Your task to perform on an android device: Open the phone app and click the voicemail tab. Image 0: 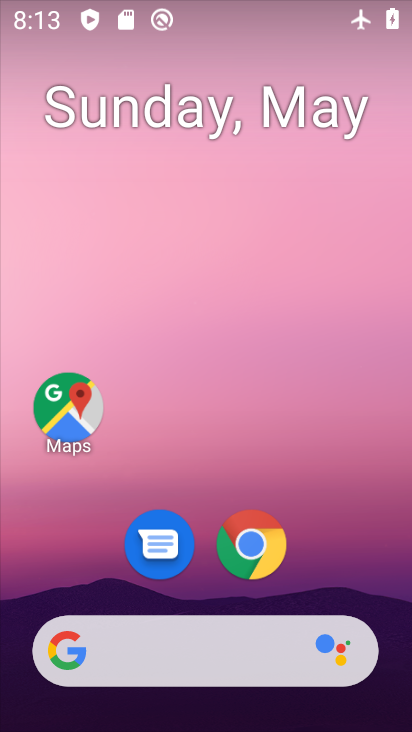
Step 0: drag from (380, 559) to (231, 1)
Your task to perform on an android device: Open the phone app and click the voicemail tab. Image 1: 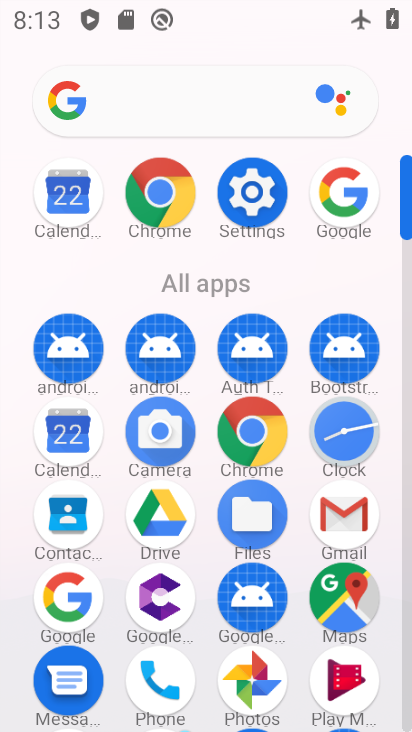
Step 1: drag from (17, 634) to (24, 286)
Your task to perform on an android device: Open the phone app and click the voicemail tab. Image 2: 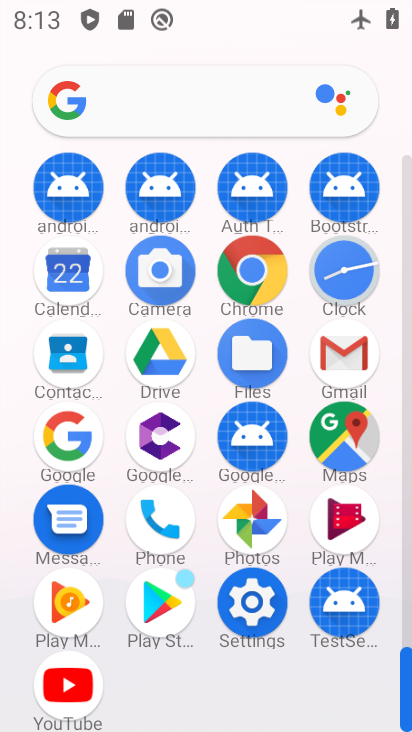
Step 2: click (157, 515)
Your task to perform on an android device: Open the phone app and click the voicemail tab. Image 3: 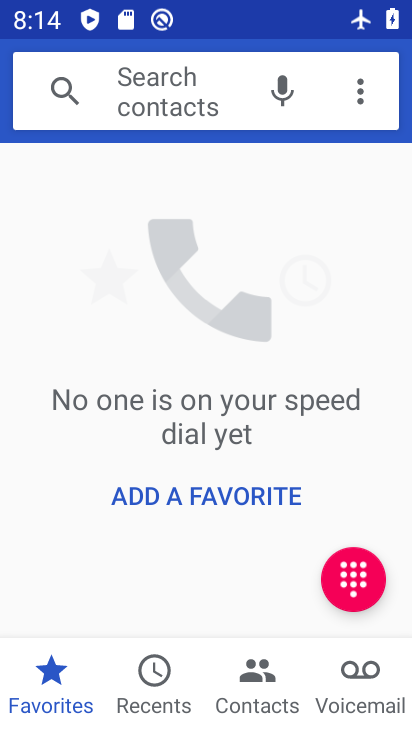
Step 3: click (358, 683)
Your task to perform on an android device: Open the phone app and click the voicemail tab. Image 4: 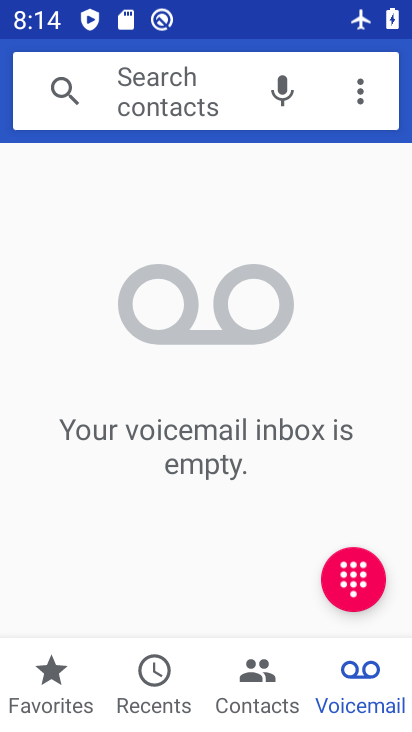
Step 4: task complete